Your task to perform on an android device: turn on the 12-hour format for clock Image 0: 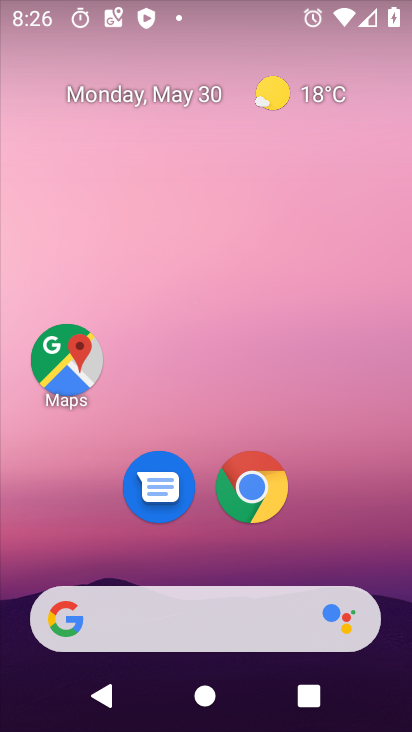
Step 0: press home button
Your task to perform on an android device: turn on the 12-hour format for clock Image 1: 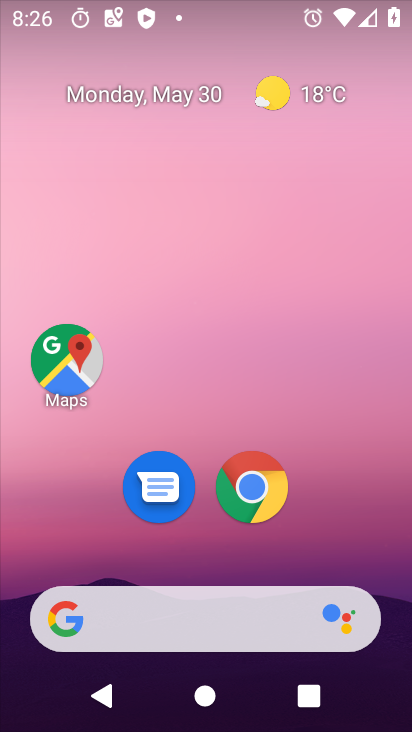
Step 1: drag from (342, 544) to (308, 22)
Your task to perform on an android device: turn on the 12-hour format for clock Image 2: 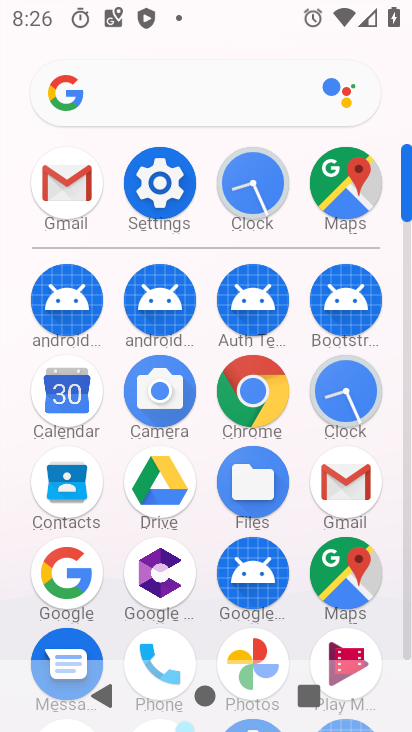
Step 2: click (182, 190)
Your task to perform on an android device: turn on the 12-hour format for clock Image 3: 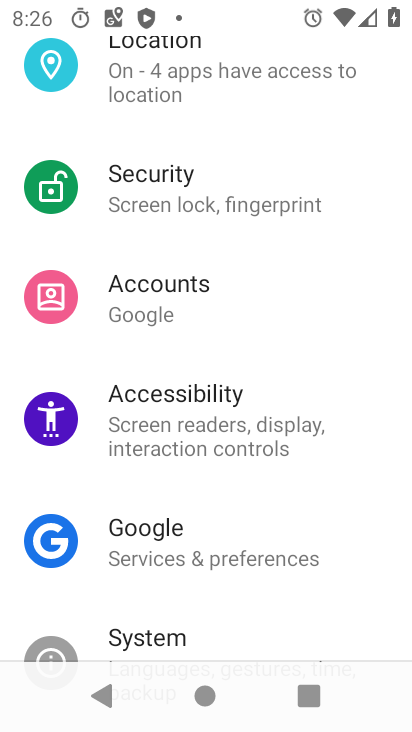
Step 3: click (148, 645)
Your task to perform on an android device: turn on the 12-hour format for clock Image 4: 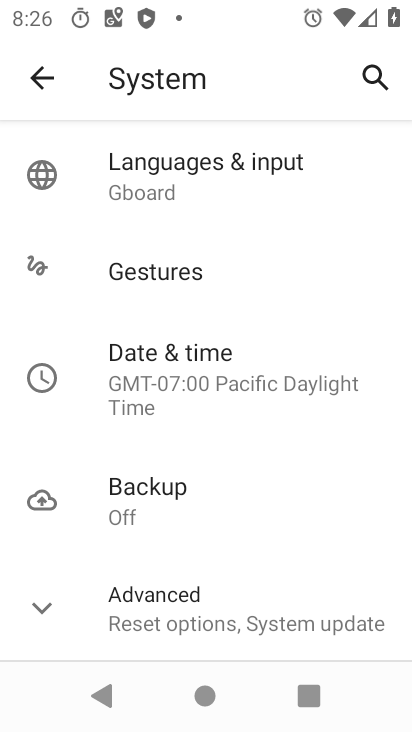
Step 4: click (169, 374)
Your task to perform on an android device: turn on the 12-hour format for clock Image 5: 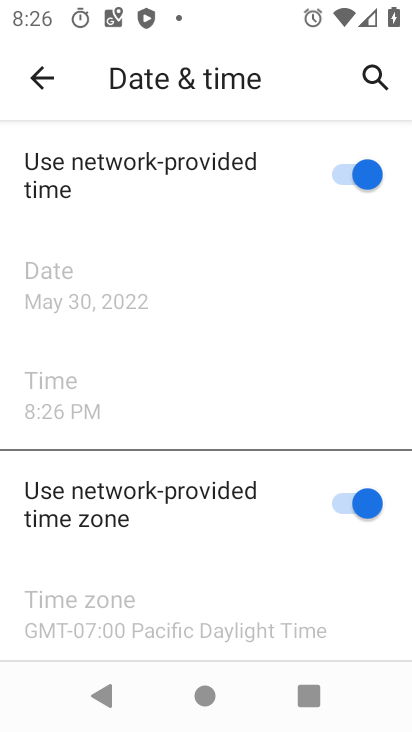
Step 5: drag from (279, 517) to (260, 0)
Your task to perform on an android device: turn on the 12-hour format for clock Image 6: 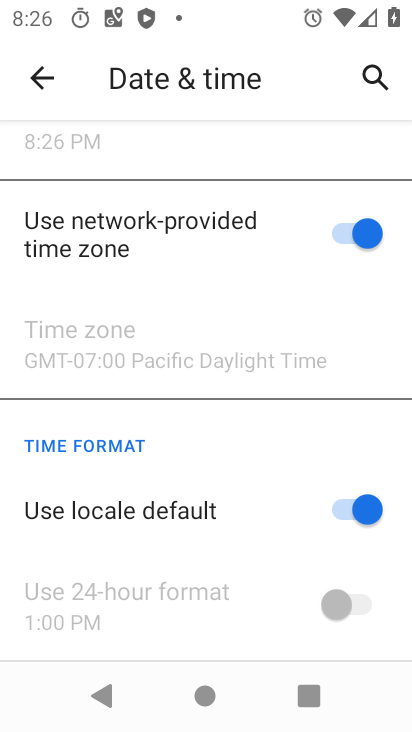
Step 6: click (368, 523)
Your task to perform on an android device: turn on the 12-hour format for clock Image 7: 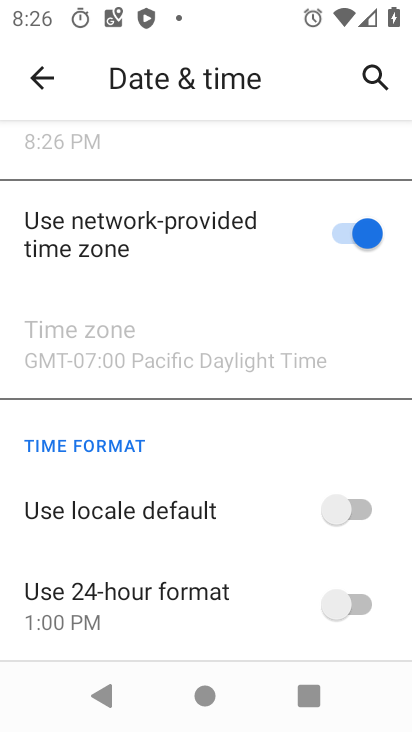
Step 7: drag from (346, 603) to (401, 604)
Your task to perform on an android device: turn on the 12-hour format for clock Image 8: 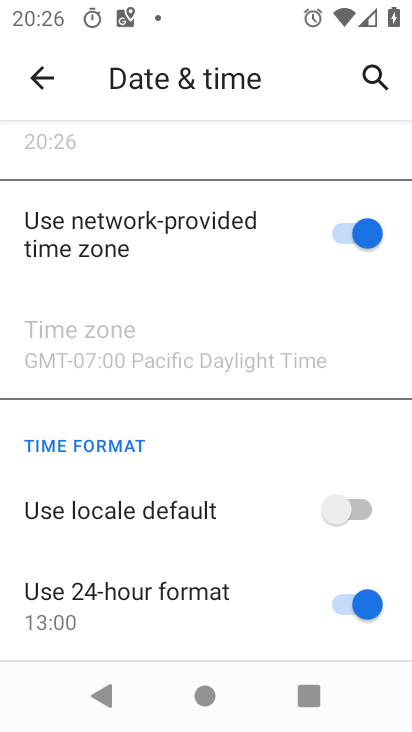
Step 8: click (360, 609)
Your task to perform on an android device: turn on the 12-hour format for clock Image 9: 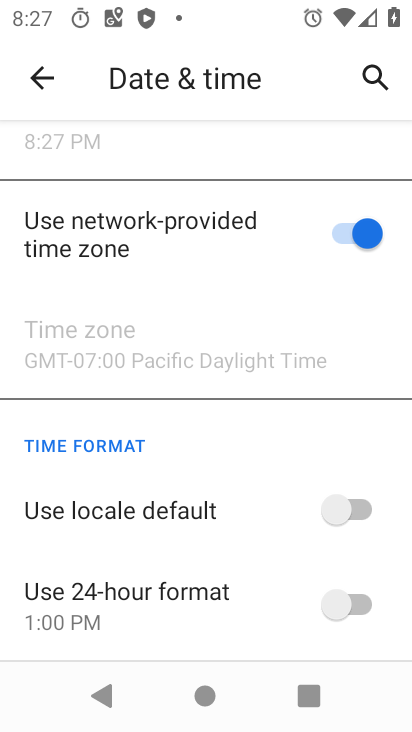
Step 9: task complete